Your task to perform on an android device: change alarm snooze length Image 0: 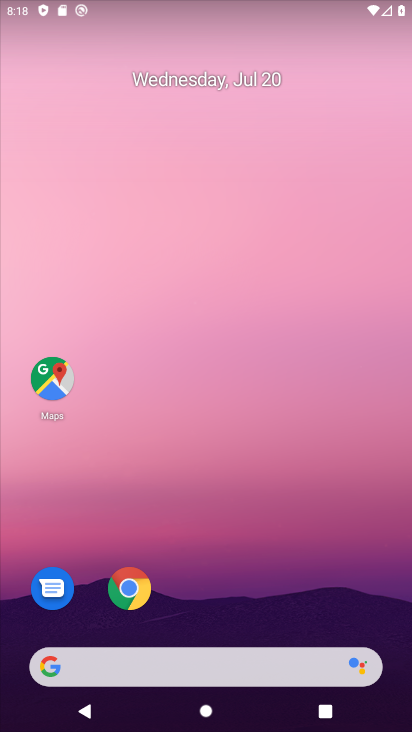
Step 0: drag from (225, 625) to (249, 82)
Your task to perform on an android device: change alarm snooze length Image 1: 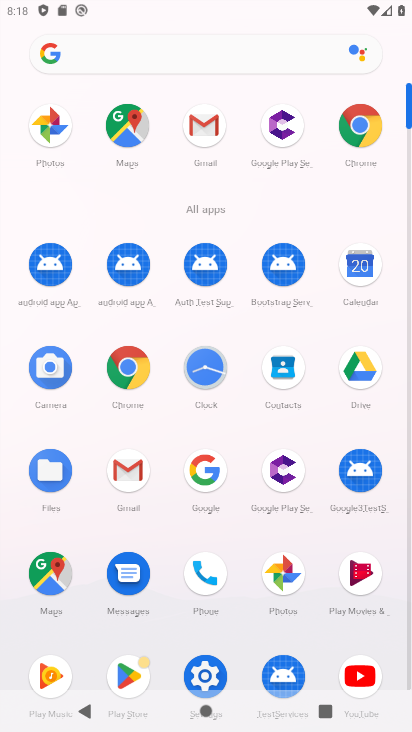
Step 1: click (213, 368)
Your task to perform on an android device: change alarm snooze length Image 2: 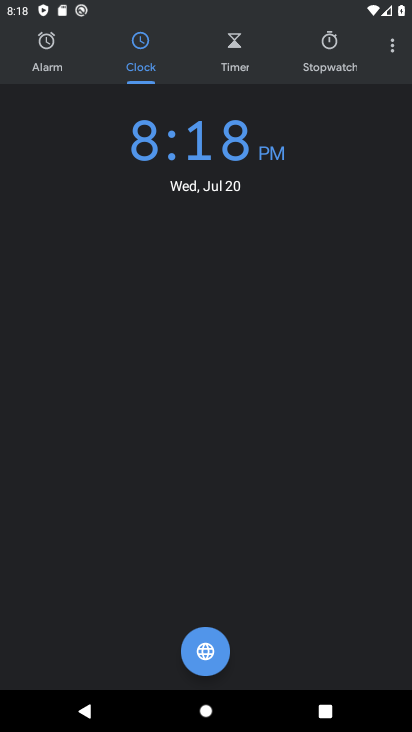
Step 2: click (395, 63)
Your task to perform on an android device: change alarm snooze length Image 3: 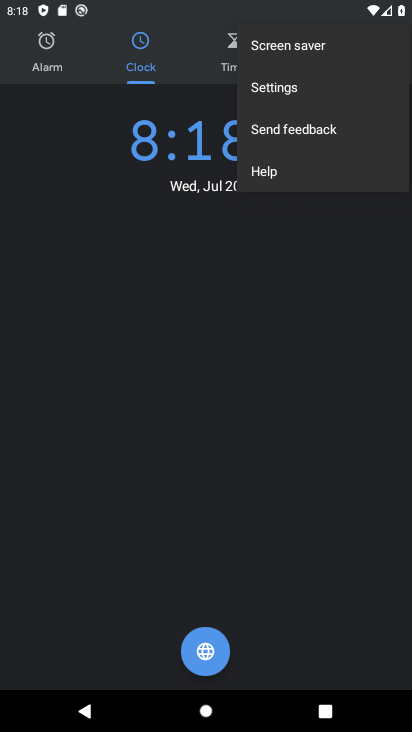
Step 3: click (316, 103)
Your task to perform on an android device: change alarm snooze length Image 4: 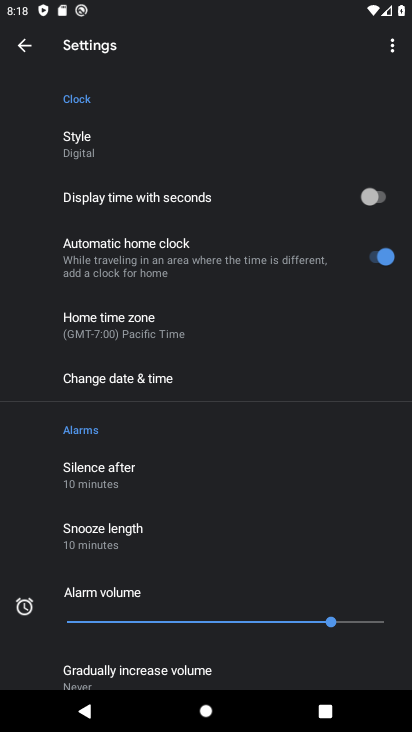
Step 4: click (111, 532)
Your task to perform on an android device: change alarm snooze length Image 5: 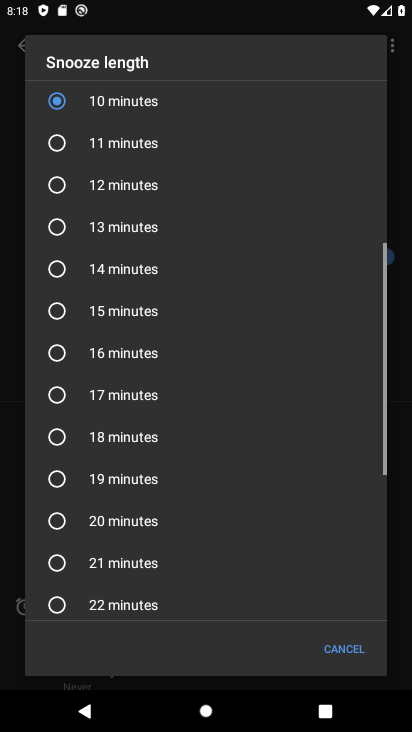
Step 5: click (111, 532)
Your task to perform on an android device: change alarm snooze length Image 6: 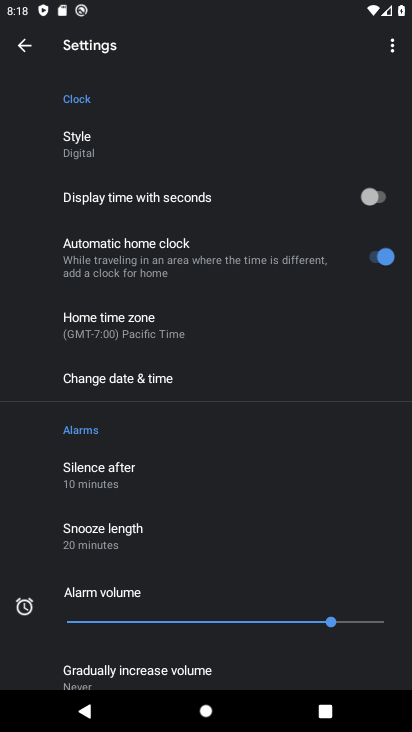
Step 6: task complete